Your task to perform on an android device: Go to internet settings Image 0: 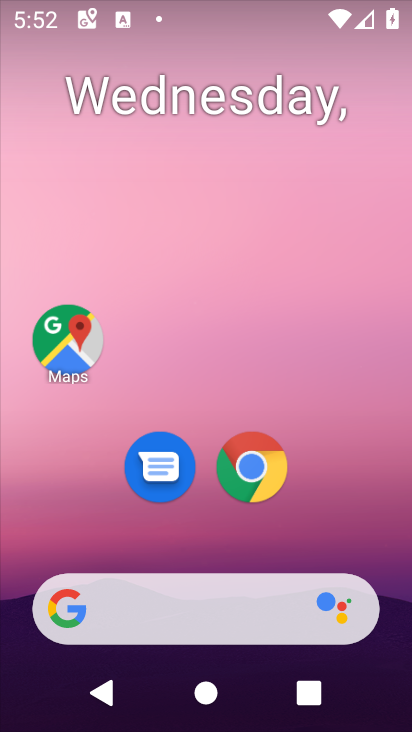
Step 0: drag from (337, 510) to (235, 39)
Your task to perform on an android device: Go to internet settings Image 1: 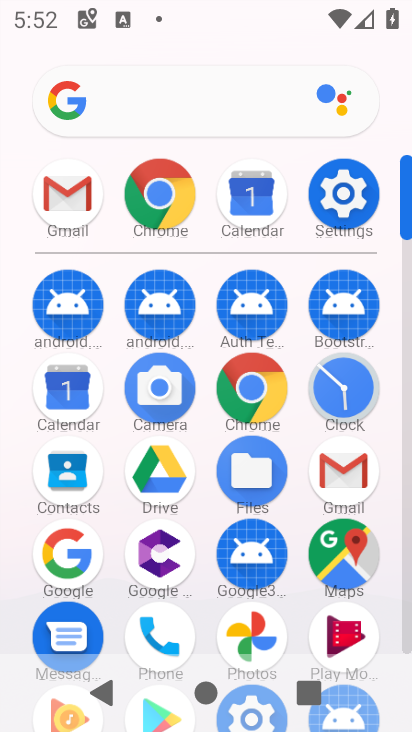
Step 1: click (338, 196)
Your task to perform on an android device: Go to internet settings Image 2: 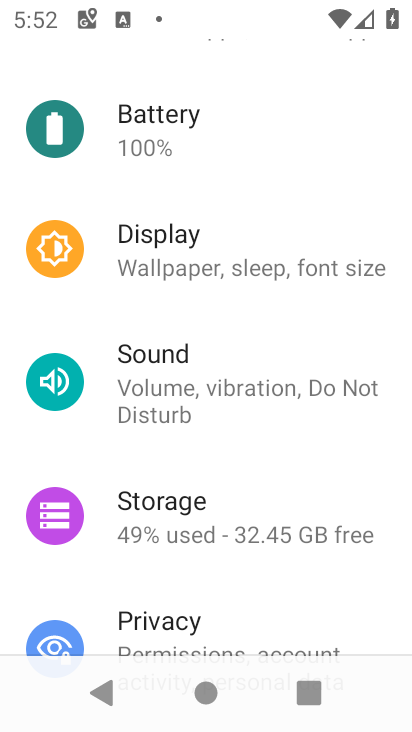
Step 2: drag from (211, 169) to (186, 625)
Your task to perform on an android device: Go to internet settings Image 3: 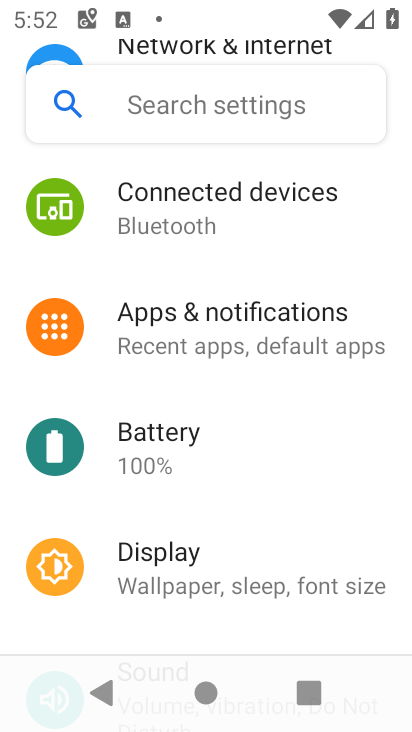
Step 3: drag from (214, 185) to (154, 595)
Your task to perform on an android device: Go to internet settings Image 4: 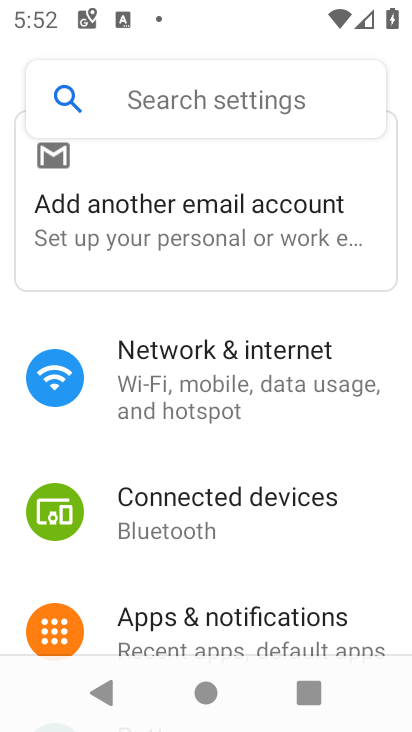
Step 4: click (194, 372)
Your task to perform on an android device: Go to internet settings Image 5: 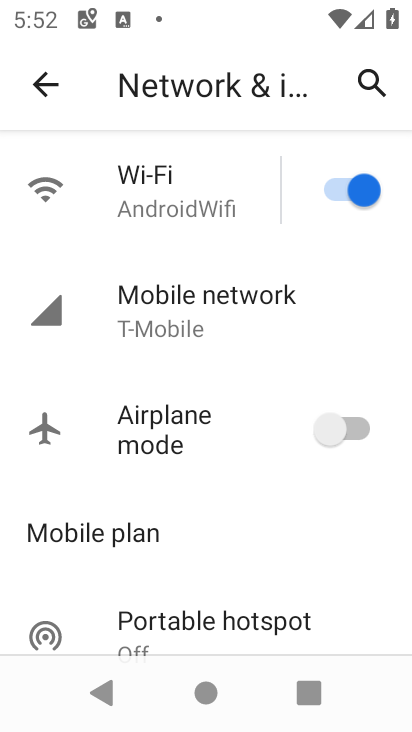
Step 5: task complete